Your task to perform on an android device: Open accessibility settings Image 0: 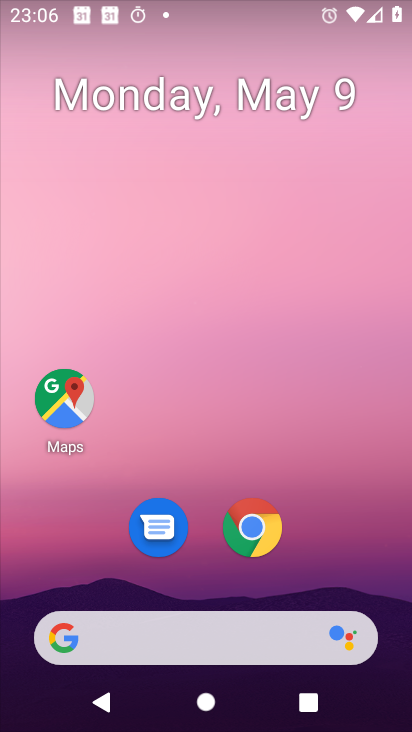
Step 0: drag from (206, 575) to (233, 31)
Your task to perform on an android device: Open accessibility settings Image 1: 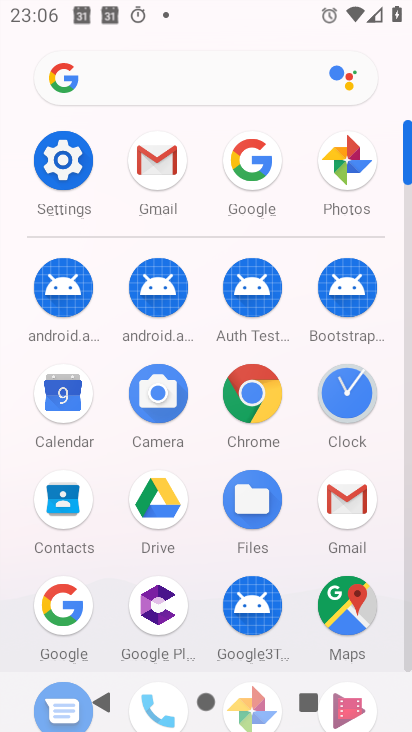
Step 1: click (68, 160)
Your task to perform on an android device: Open accessibility settings Image 2: 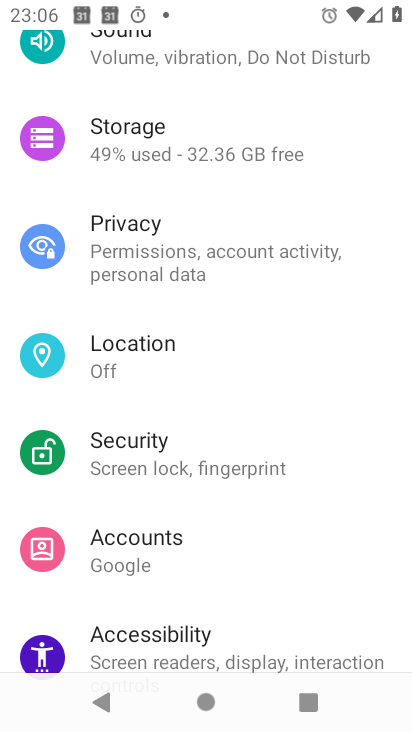
Step 2: drag from (275, 562) to (301, 298)
Your task to perform on an android device: Open accessibility settings Image 3: 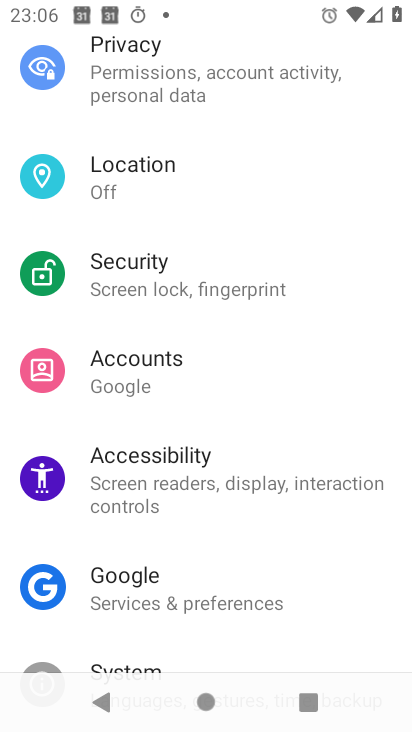
Step 3: click (195, 457)
Your task to perform on an android device: Open accessibility settings Image 4: 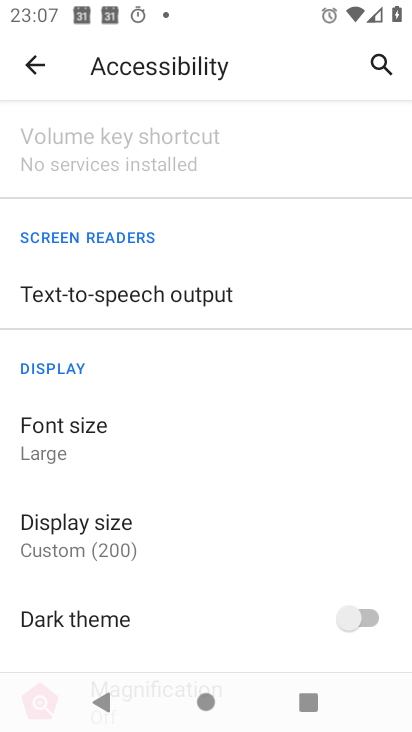
Step 4: task complete